Your task to perform on an android device: What's the news in the Bahamas? Image 0: 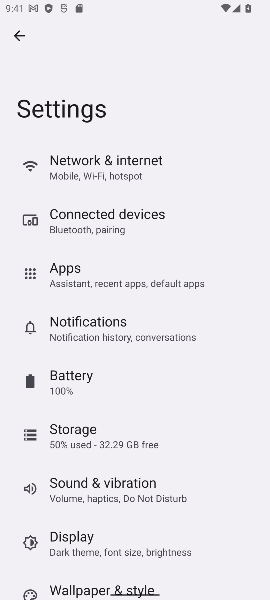
Step 0: press home button
Your task to perform on an android device: What's the news in the Bahamas? Image 1: 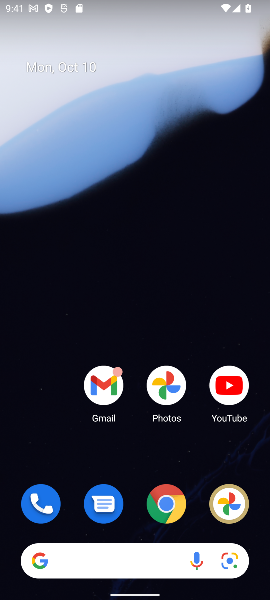
Step 1: click (167, 507)
Your task to perform on an android device: What's the news in the Bahamas? Image 2: 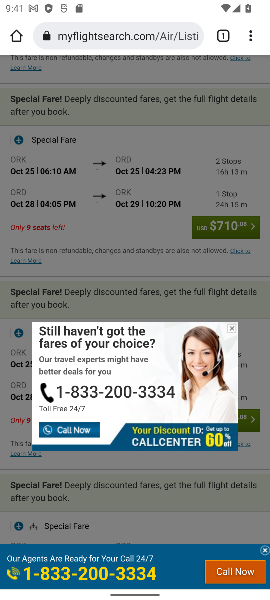
Step 2: click (131, 24)
Your task to perform on an android device: What's the news in the Bahamas? Image 3: 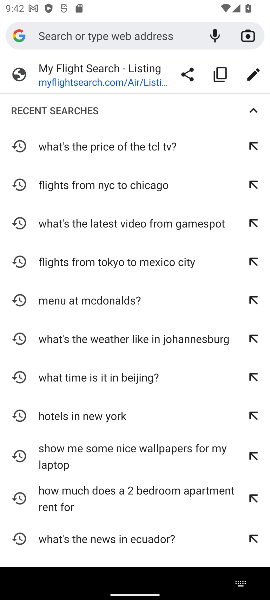
Step 3: type " news in the Bahamas"
Your task to perform on an android device: What's the news in the Bahamas? Image 4: 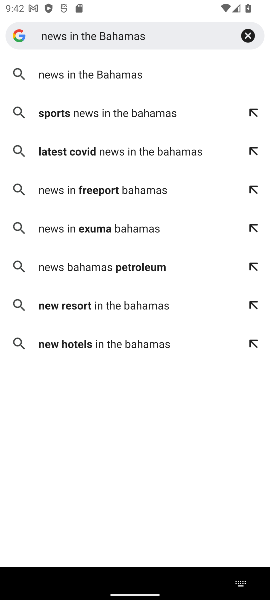
Step 4: click (76, 67)
Your task to perform on an android device: What's the news in the Bahamas? Image 5: 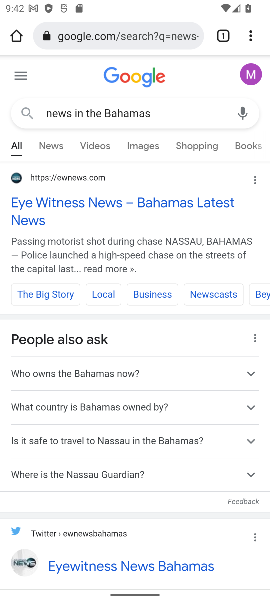
Step 5: click (66, 203)
Your task to perform on an android device: What's the news in the Bahamas? Image 6: 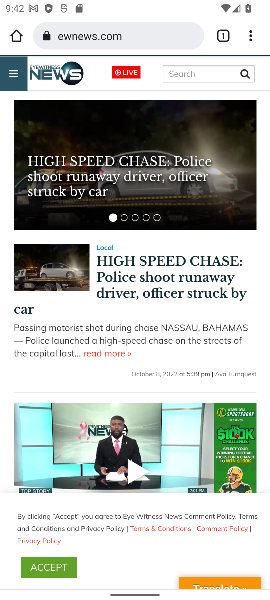
Step 6: drag from (126, 341) to (125, 40)
Your task to perform on an android device: What's the news in the Bahamas? Image 7: 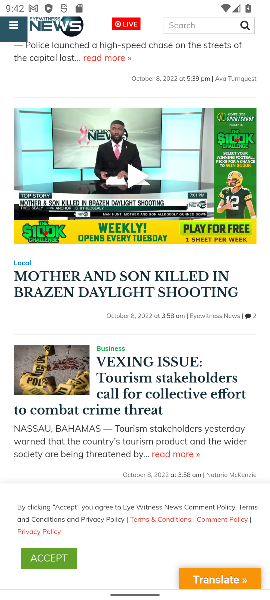
Step 7: drag from (125, 471) to (146, 165)
Your task to perform on an android device: What's the news in the Bahamas? Image 8: 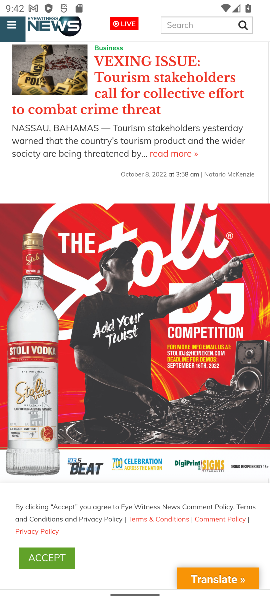
Step 8: click (43, 557)
Your task to perform on an android device: What's the news in the Bahamas? Image 9: 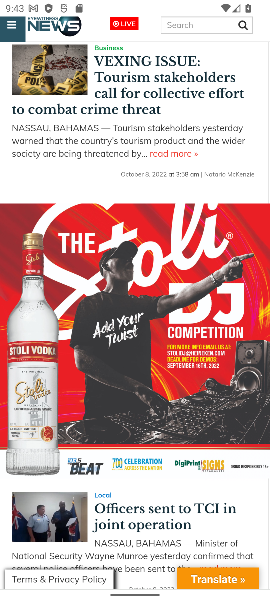
Step 9: task complete